Your task to perform on an android device: Open Amazon Image 0: 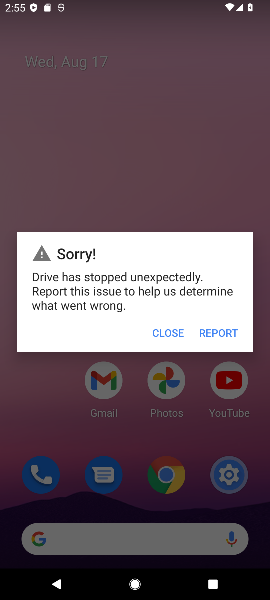
Step 0: click (162, 320)
Your task to perform on an android device: Open Amazon Image 1: 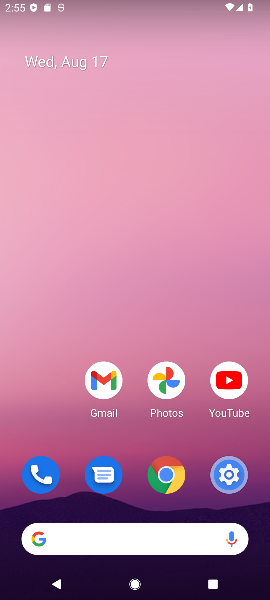
Step 1: click (161, 467)
Your task to perform on an android device: Open Amazon Image 2: 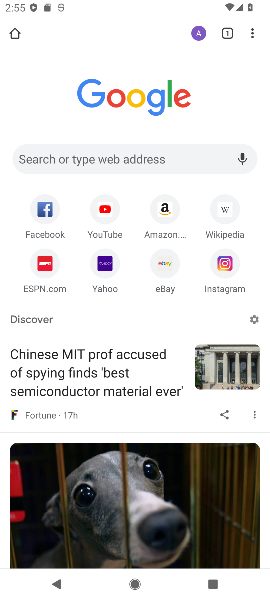
Step 2: click (156, 204)
Your task to perform on an android device: Open Amazon Image 3: 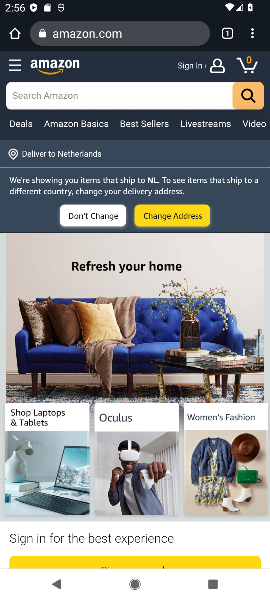
Step 3: task complete